Your task to perform on an android device: Open Google Chrome Image 0: 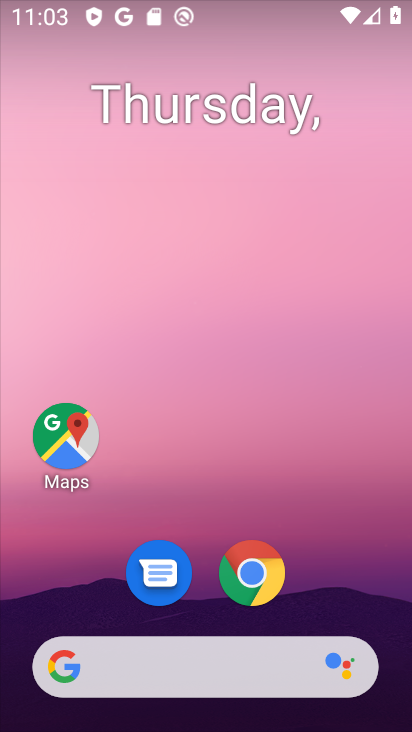
Step 0: drag from (198, 623) to (238, 151)
Your task to perform on an android device: Open Google Chrome Image 1: 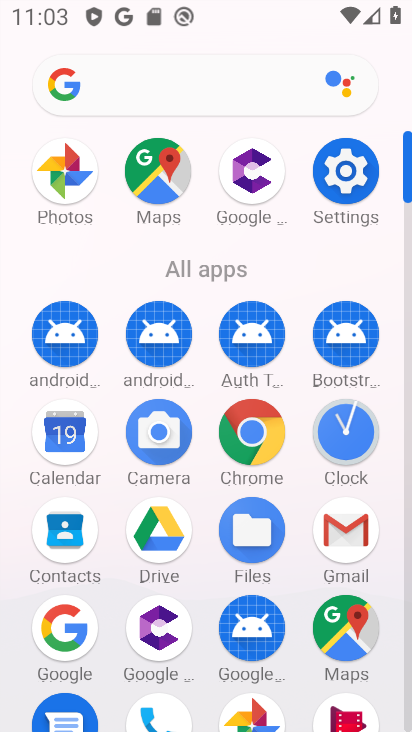
Step 1: click (250, 441)
Your task to perform on an android device: Open Google Chrome Image 2: 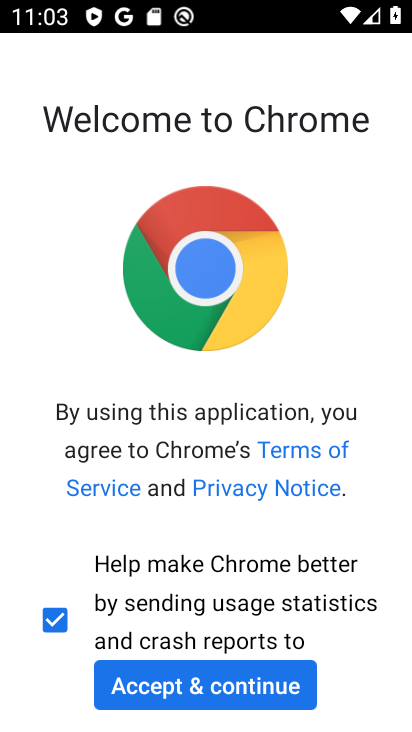
Step 2: click (195, 684)
Your task to perform on an android device: Open Google Chrome Image 3: 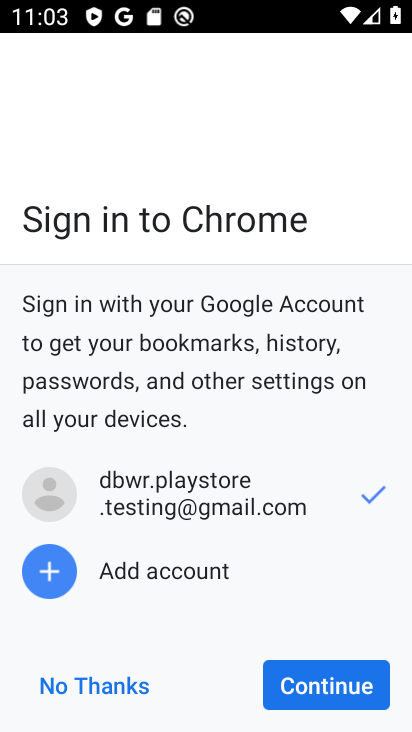
Step 3: click (316, 689)
Your task to perform on an android device: Open Google Chrome Image 4: 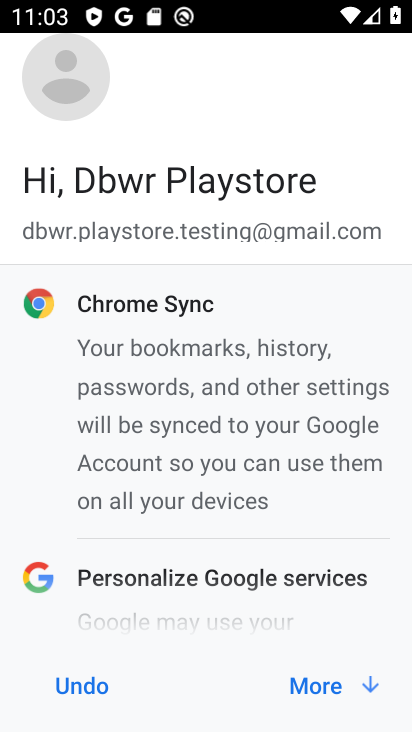
Step 4: click (328, 681)
Your task to perform on an android device: Open Google Chrome Image 5: 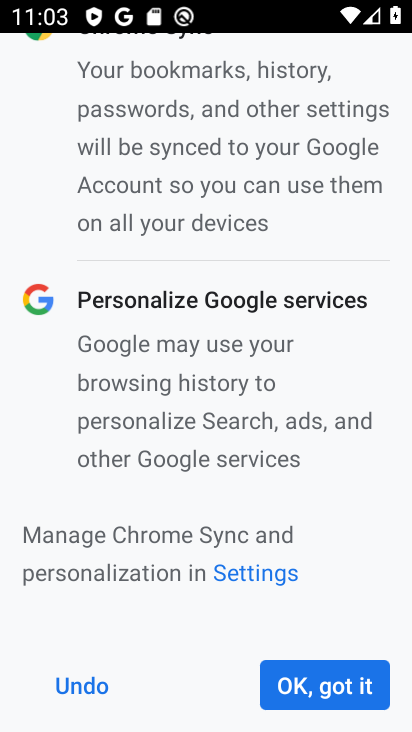
Step 5: click (328, 681)
Your task to perform on an android device: Open Google Chrome Image 6: 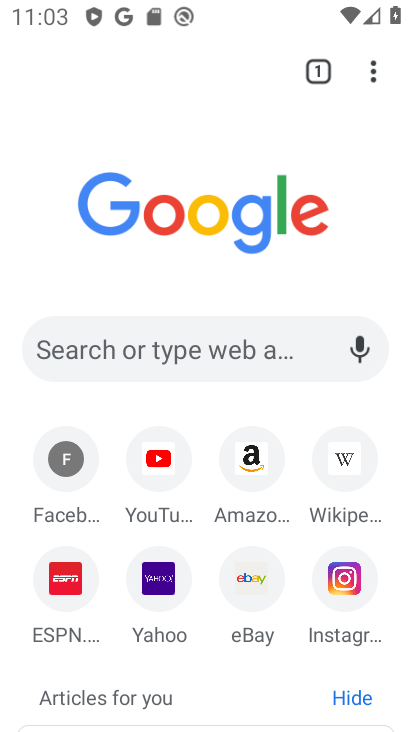
Step 6: task complete